Your task to perform on an android device: Open Google Image 0: 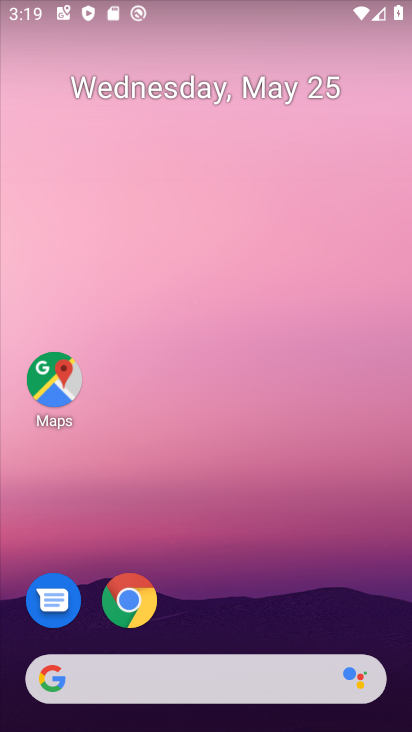
Step 0: press home button
Your task to perform on an android device: Open Google Image 1: 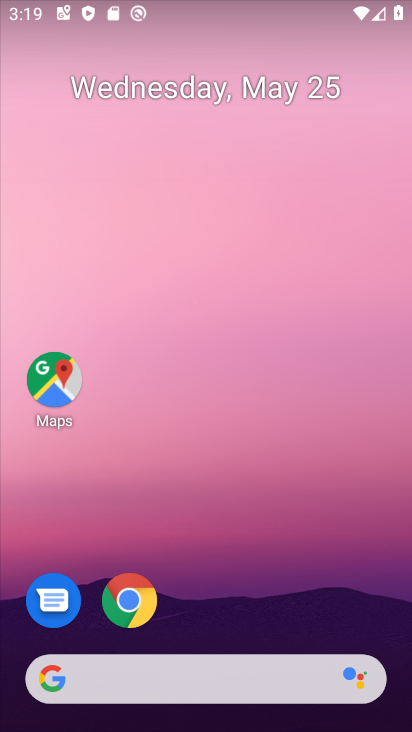
Step 1: click (56, 668)
Your task to perform on an android device: Open Google Image 2: 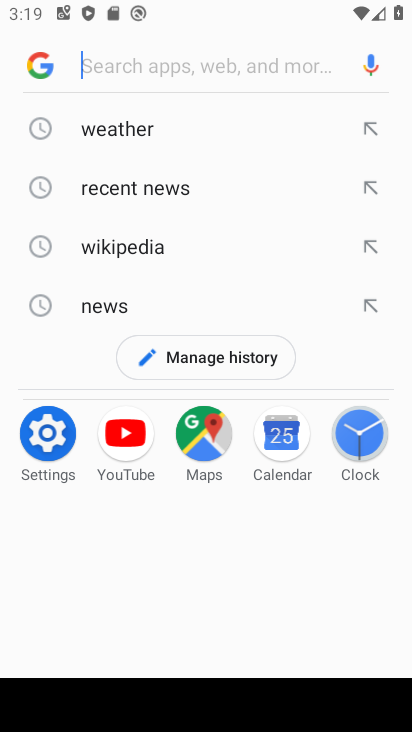
Step 2: click (49, 70)
Your task to perform on an android device: Open Google Image 3: 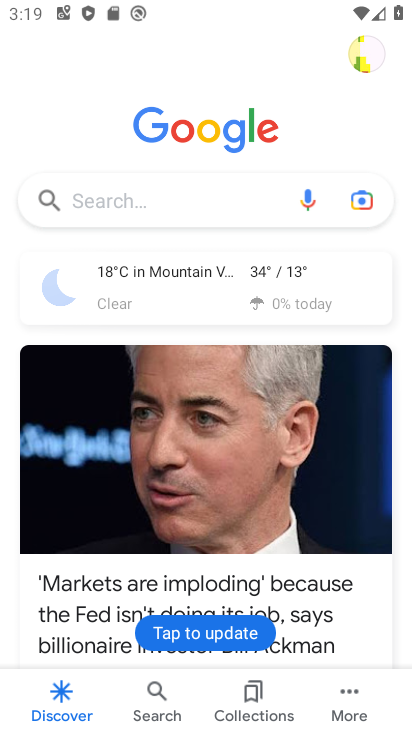
Step 3: task complete